Your task to perform on an android device: Add "razer huntsman" to the cart on walmart.com, then select checkout. Image 0: 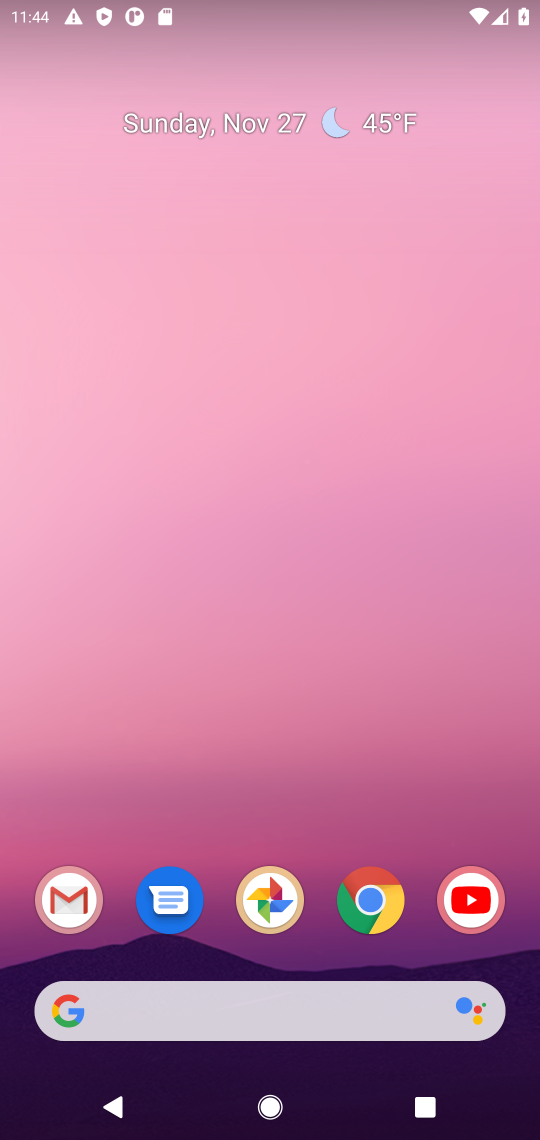
Step 0: click (391, 928)
Your task to perform on an android device: Add "razer huntsman" to the cart on walmart.com, then select checkout. Image 1: 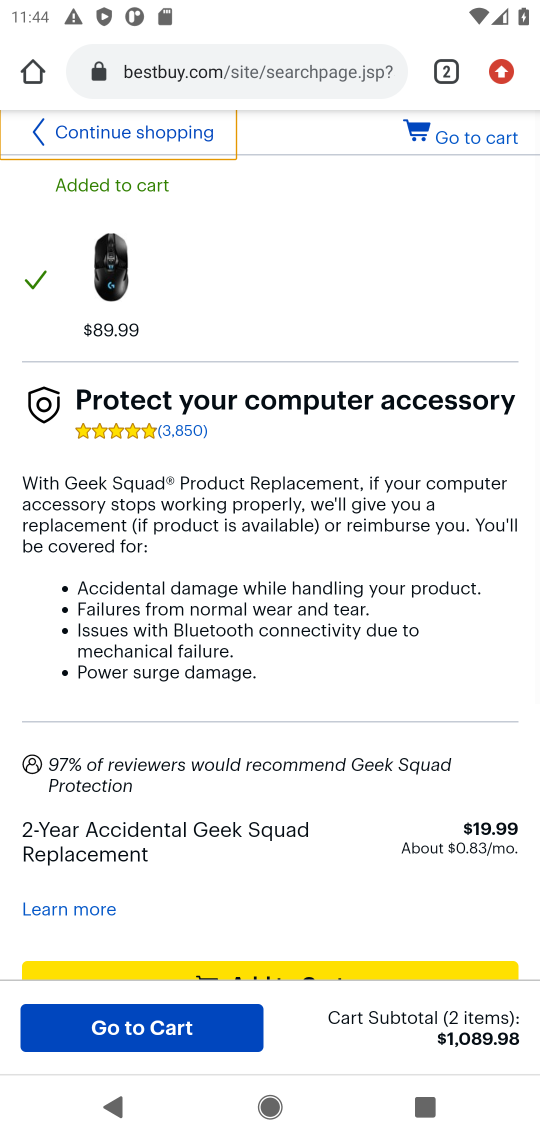
Step 1: click (177, 78)
Your task to perform on an android device: Add "razer huntsman" to the cart on walmart.com, then select checkout. Image 2: 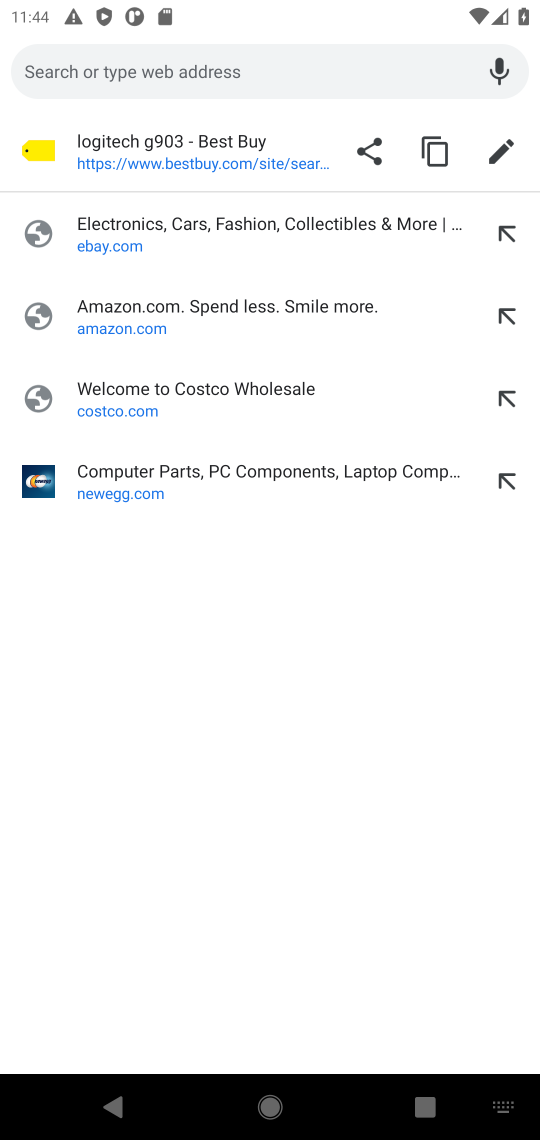
Step 2: type "walmart.com"
Your task to perform on an android device: Add "razer huntsman" to the cart on walmart.com, then select checkout. Image 3: 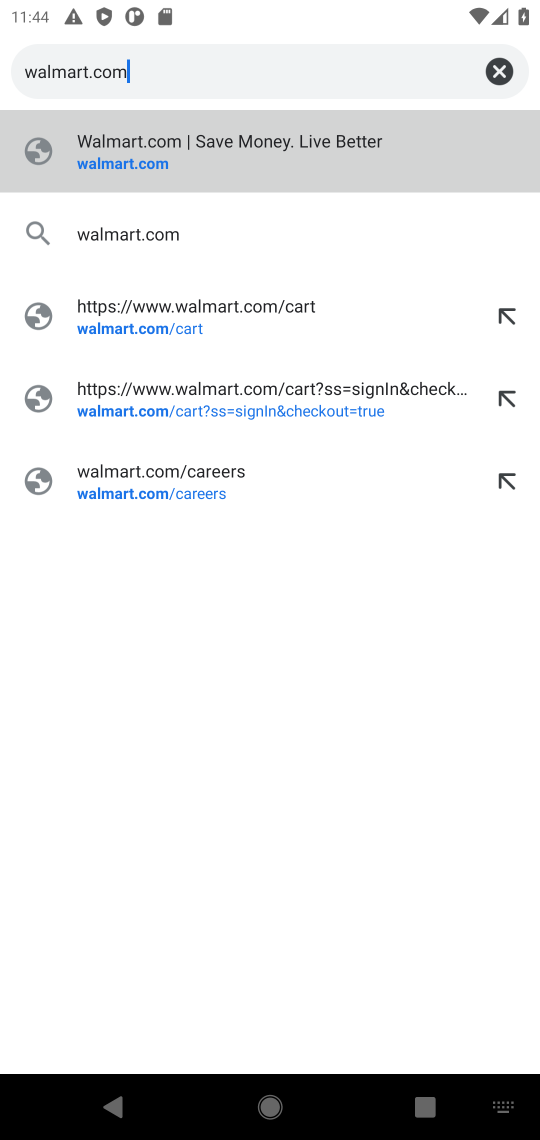
Step 3: click (125, 170)
Your task to perform on an android device: Add "razer huntsman" to the cart on walmart.com, then select checkout. Image 4: 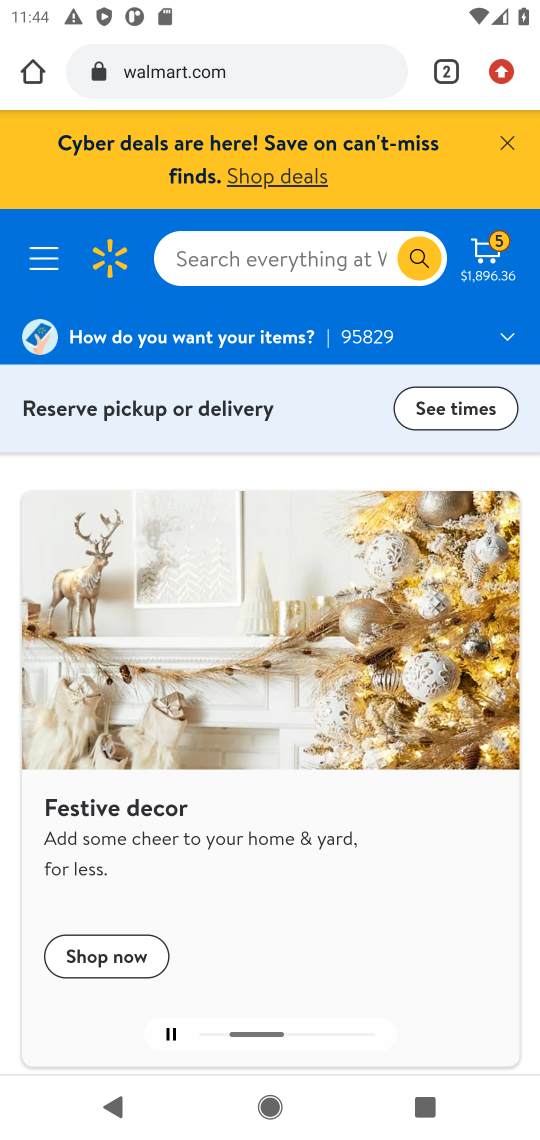
Step 4: click (209, 266)
Your task to perform on an android device: Add "razer huntsman" to the cart on walmart.com, then select checkout. Image 5: 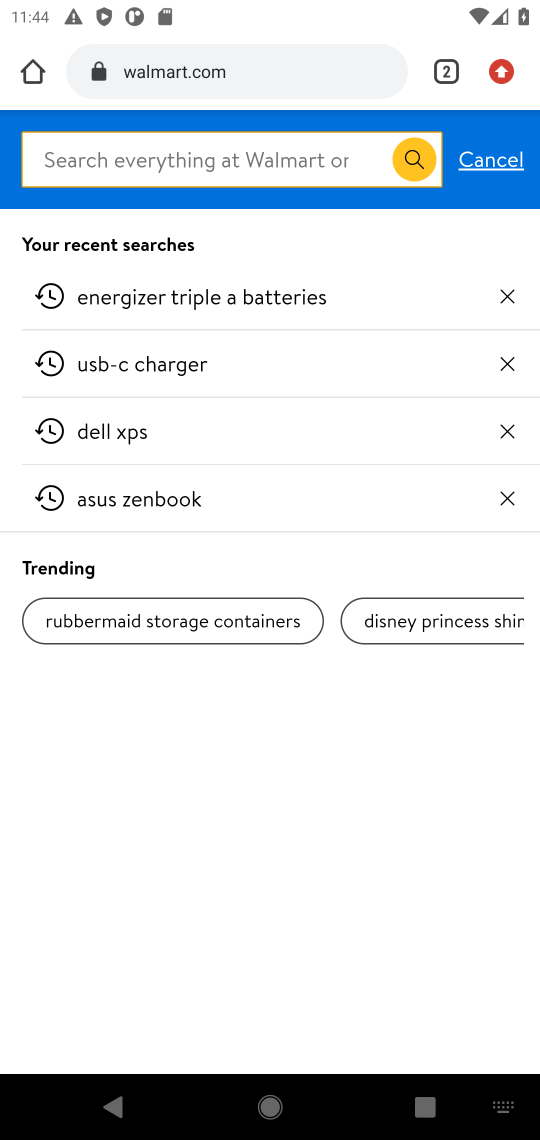
Step 5: type "razer huntsman"
Your task to perform on an android device: Add "razer huntsman" to the cart on walmart.com, then select checkout. Image 6: 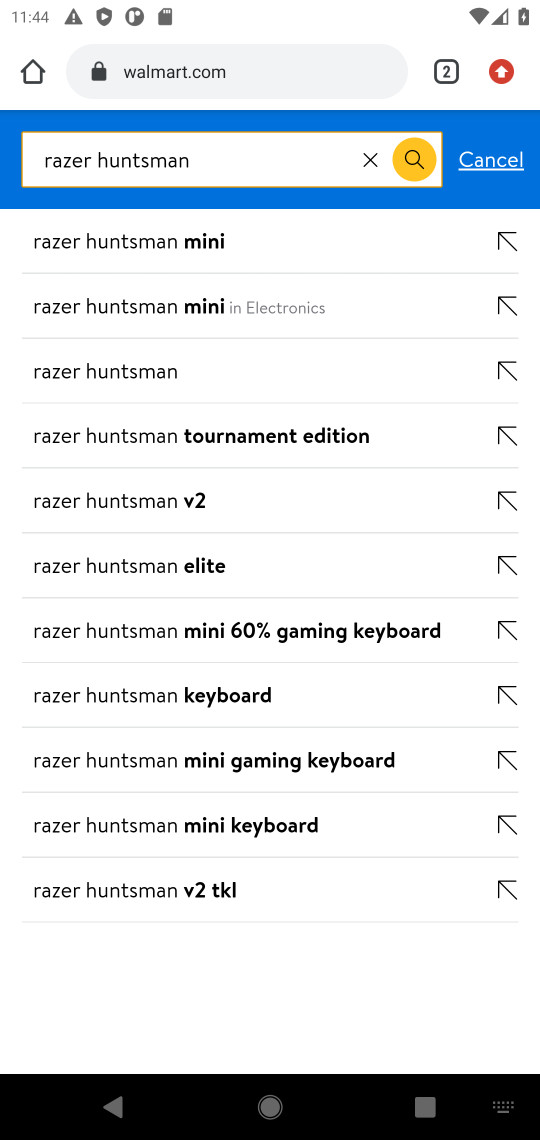
Step 6: click (121, 369)
Your task to perform on an android device: Add "razer huntsman" to the cart on walmart.com, then select checkout. Image 7: 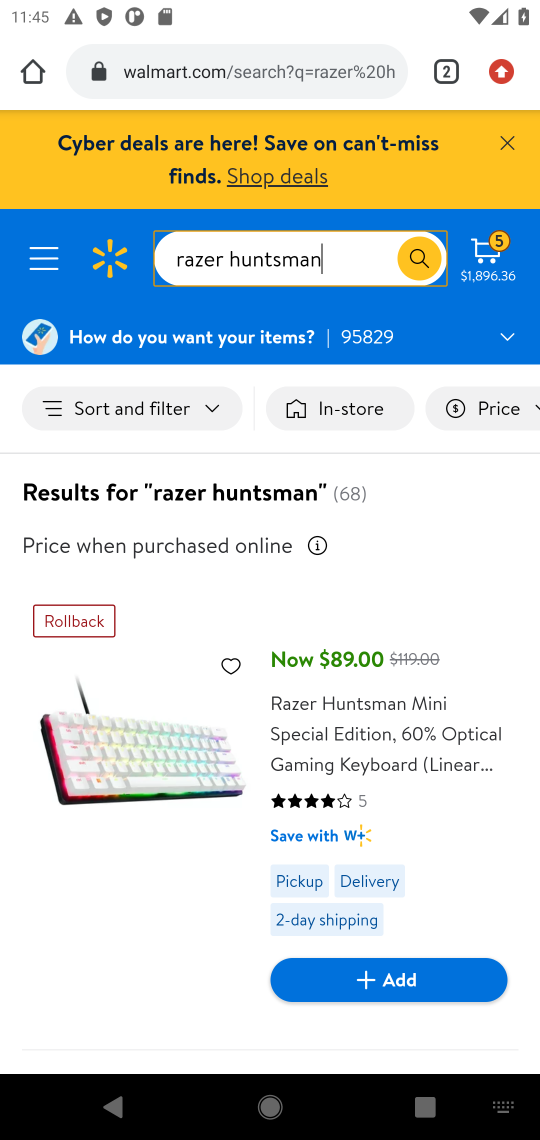
Step 7: click (395, 989)
Your task to perform on an android device: Add "razer huntsman" to the cart on walmart.com, then select checkout. Image 8: 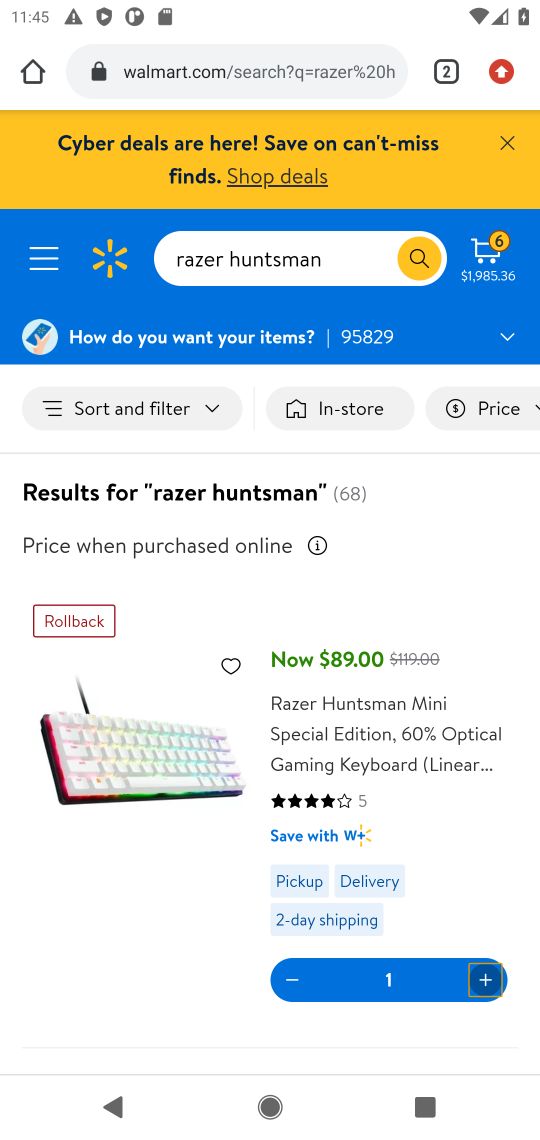
Step 8: click (492, 260)
Your task to perform on an android device: Add "razer huntsman" to the cart on walmart.com, then select checkout. Image 9: 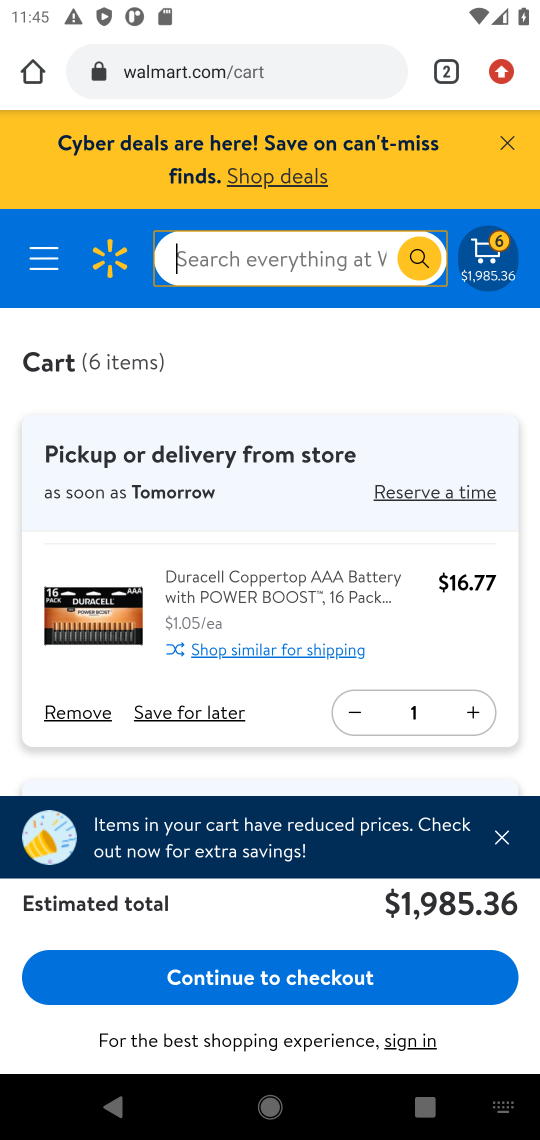
Step 9: click (231, 978)
Your task to perform on an android device: Add "razer huntsman" to the cart on walmart.com, then select checkout. Image 10: 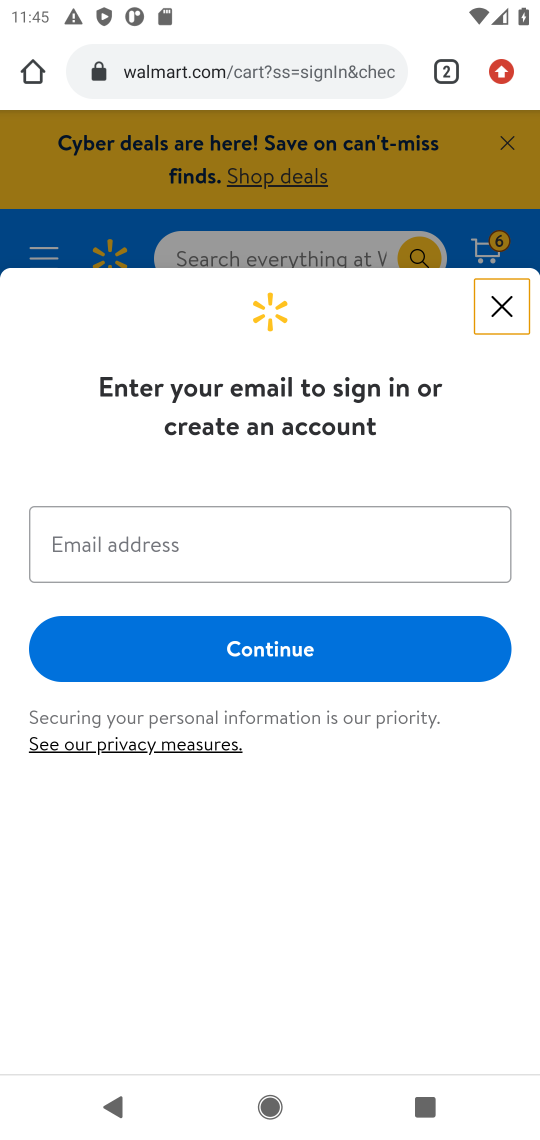
Step 10: task complete